Your task to perform on an android device: change alarm snooze length Image 0: 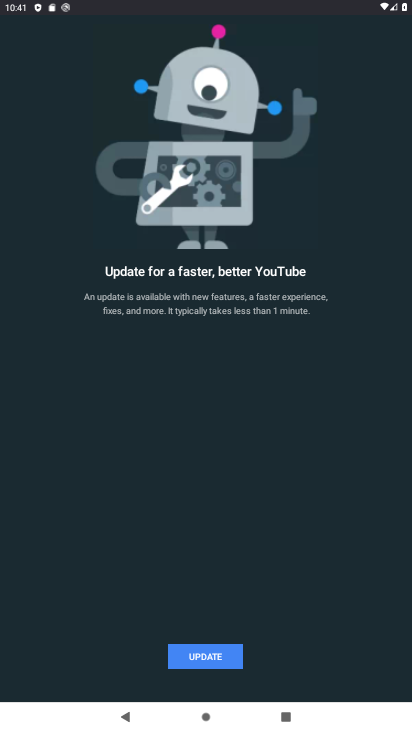
Step 0: press home button
Your task to perform on an android device: change alarm snooze length Image 1: 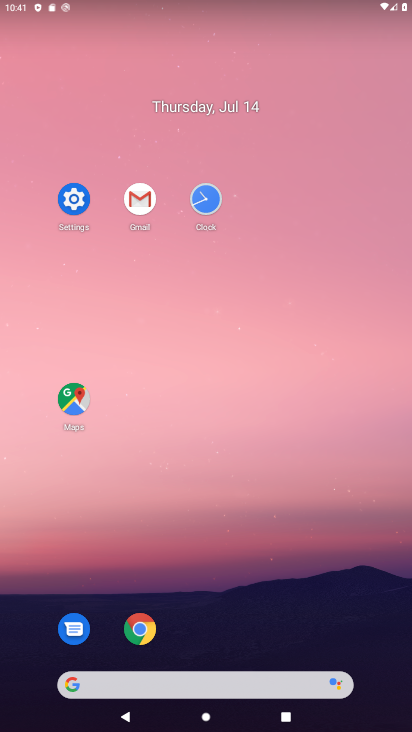
Step 1: click (207, 202)
Your task to perform on an android device: change alarm snooze length Image 2: 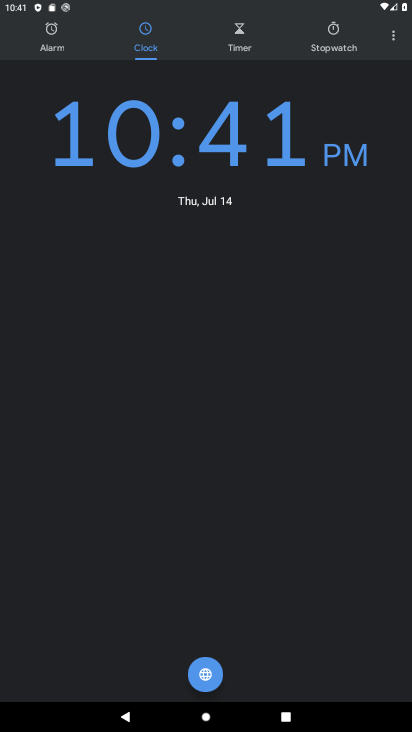
Step 2: click (382, 45)
Your task to perform on an android device: change alarm snooze length Image 3: 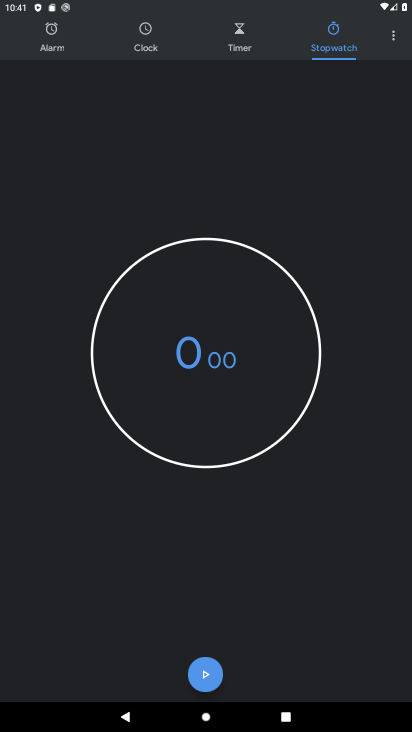
Step 3: click (398, 30)
Your task to perform on an android device: change alarm snooze length Image 4: 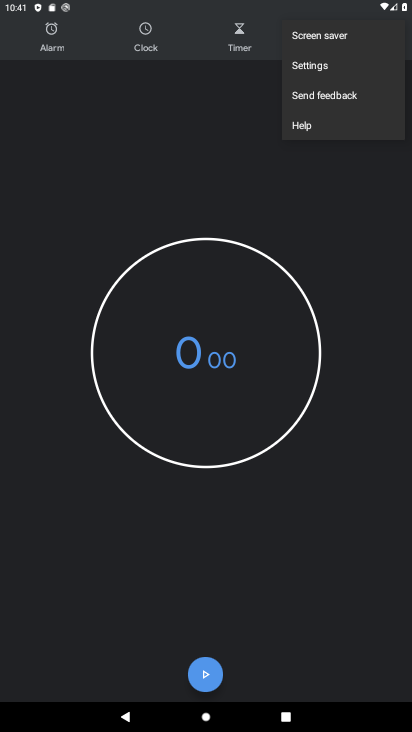
Step 4: click (343, 66)
Your task to perform on an android device: change alarm snooze length Image 5: 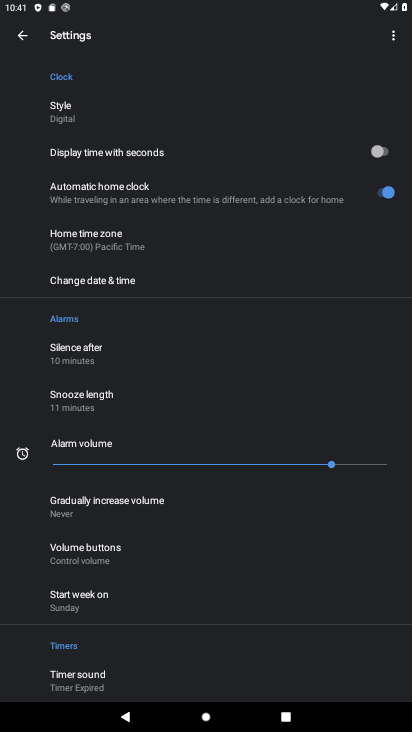
Step 5: click (119, 397)
Your task to perform on an android device: change alarm snooze length Image 6: 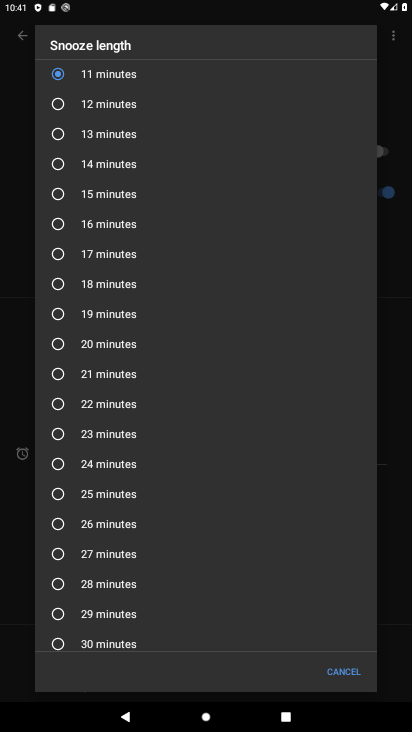
Step 6: click (81, 104)
Your task to perform on an android device: change alarm snooze length Image 7: 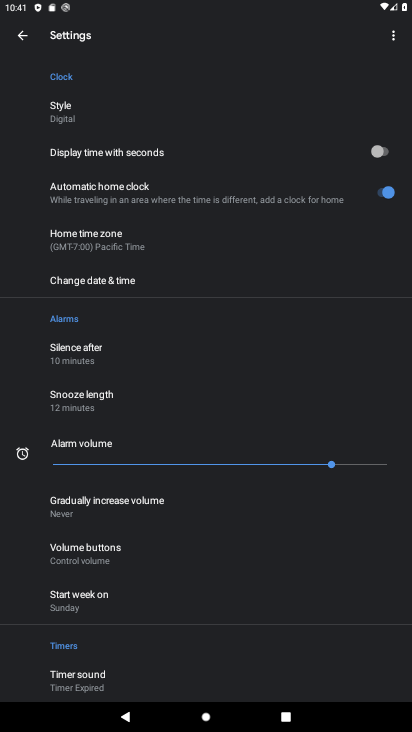
Step 7: task complete